Your task to perform on an android device: What's the weather going to be tomorrow? Image 0: 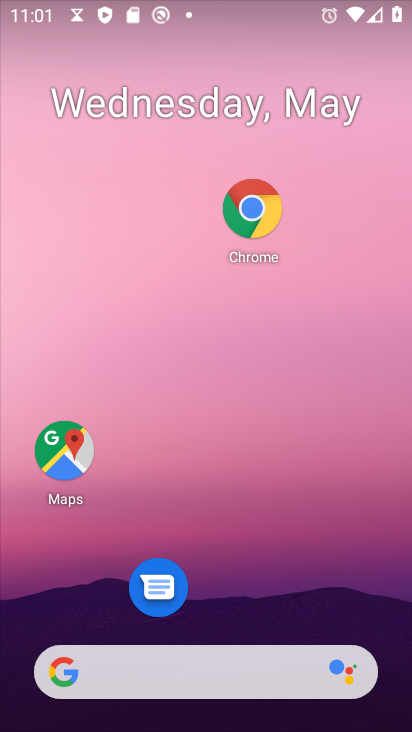
Step 0: click (180, 669)
Your task to perform on an android device: What's the weather going to be tomorrow? Image 1: 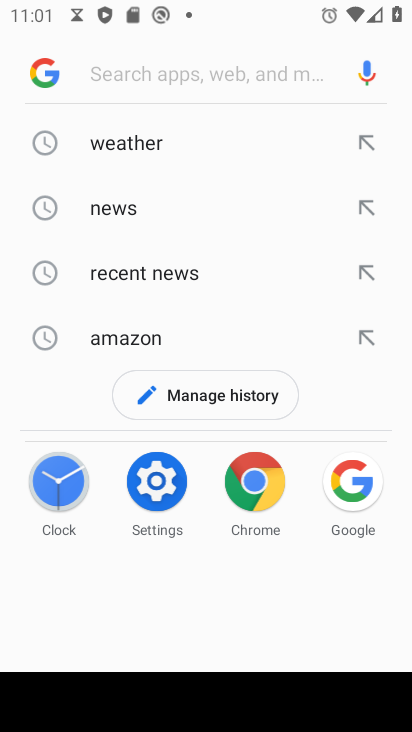
Step 1: click (137, 151)
Your task to perform on an android device: What's the weather going to be tomorrow? Image 2: 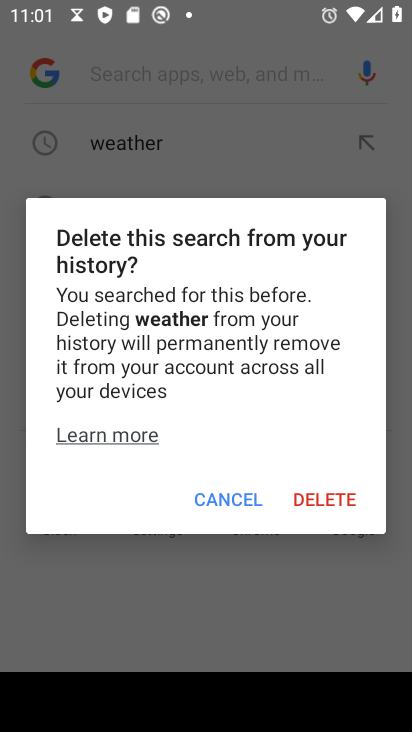
Step 2: click (225, 502)
Your task to perform on an android device: What's the weather going to be tomorrow? Image 3: 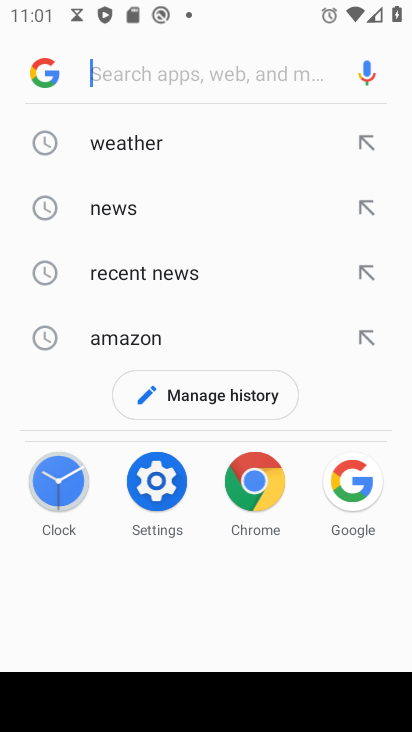
Step 3: click (133, 141)
Your task to perform on an android device: What's the weather going to be tomorrow? Image 4: 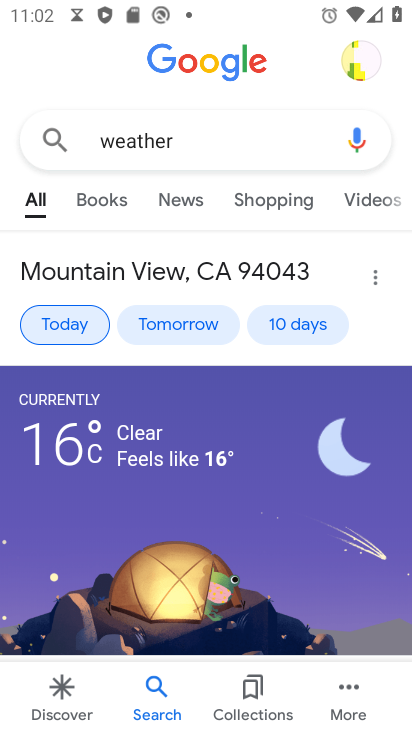
Step 4: task complete